Your task to perform on an android device: find which apps use the phone's location Image 0: 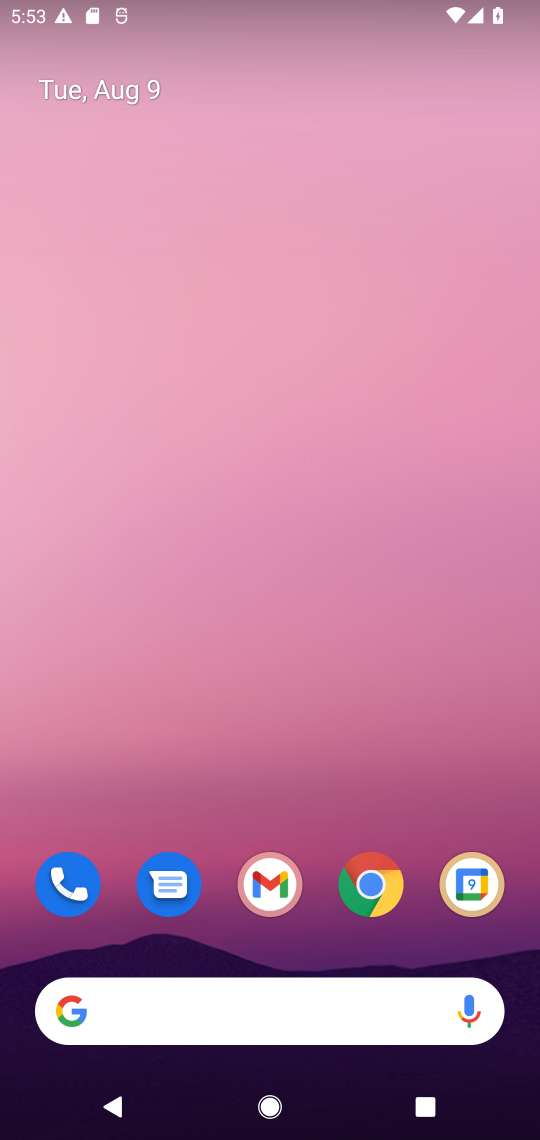
Step 0: press home button
Your task to perform on an android device: find which apps use the phone's location Image 1: 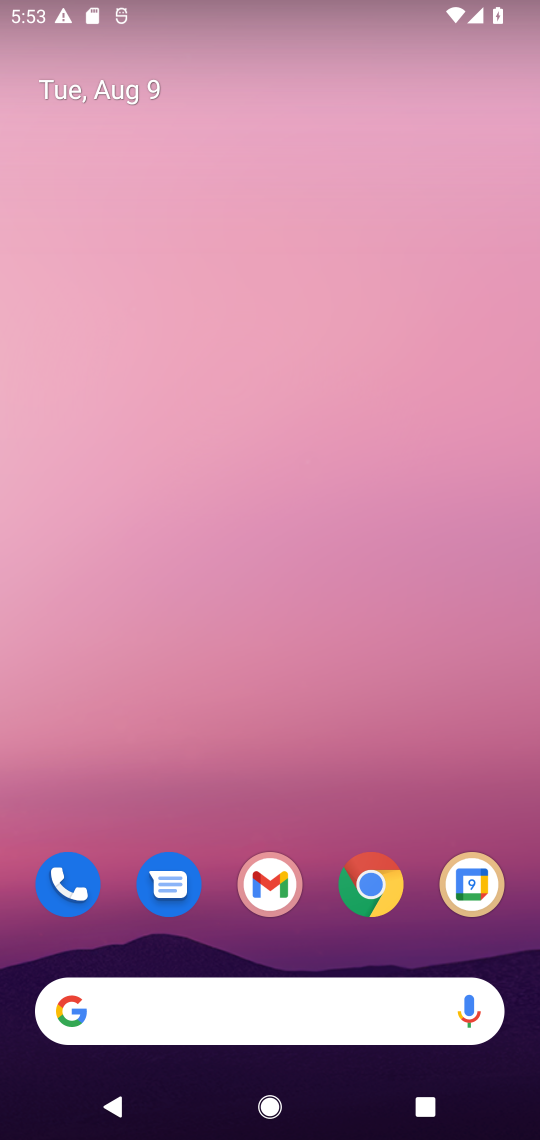
Step 1: drag from (192, 1009) to (314, 311)
Your task to perform on an android device: find which apps use the phone's location Image 2: 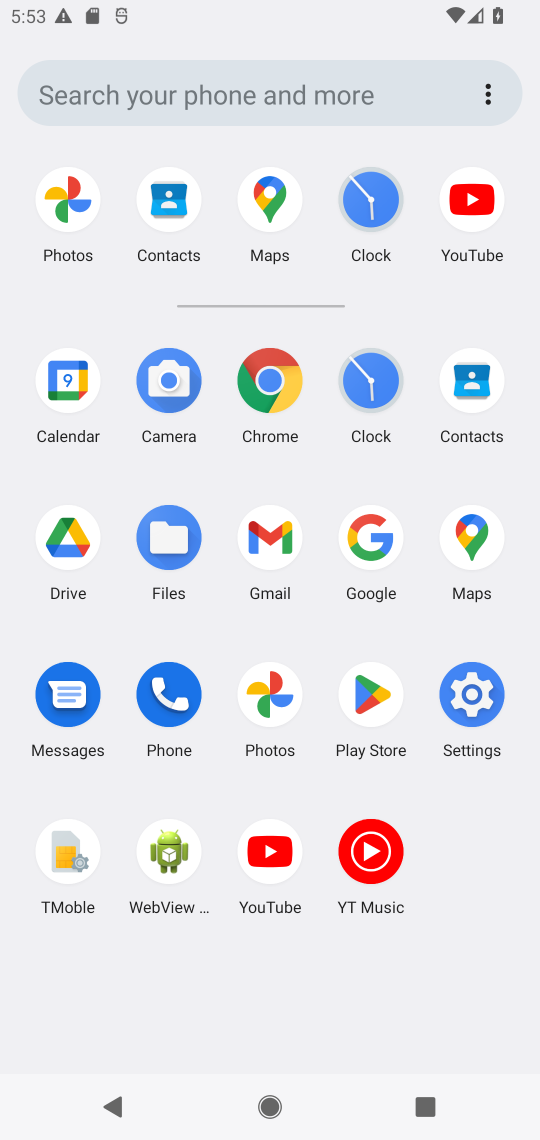
Step 2: click (474, 693)
Your task to perform on an android device: find which apps use the phone's location Image 3: 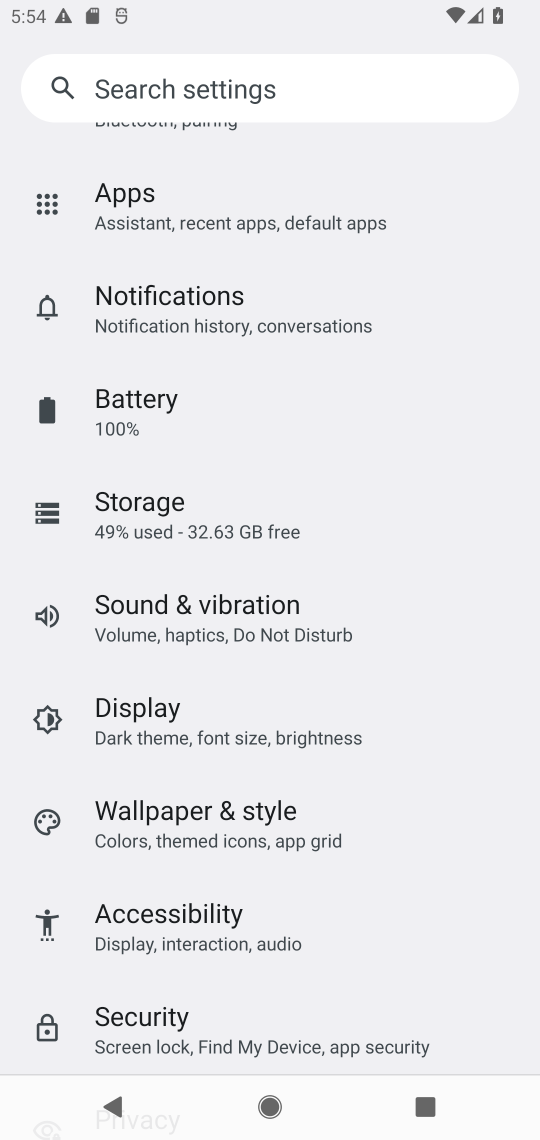
Step 3: drag from (189, 847) to (346, 654)
Your task to perform on an android device: find which apps use the phone's location Image 4: 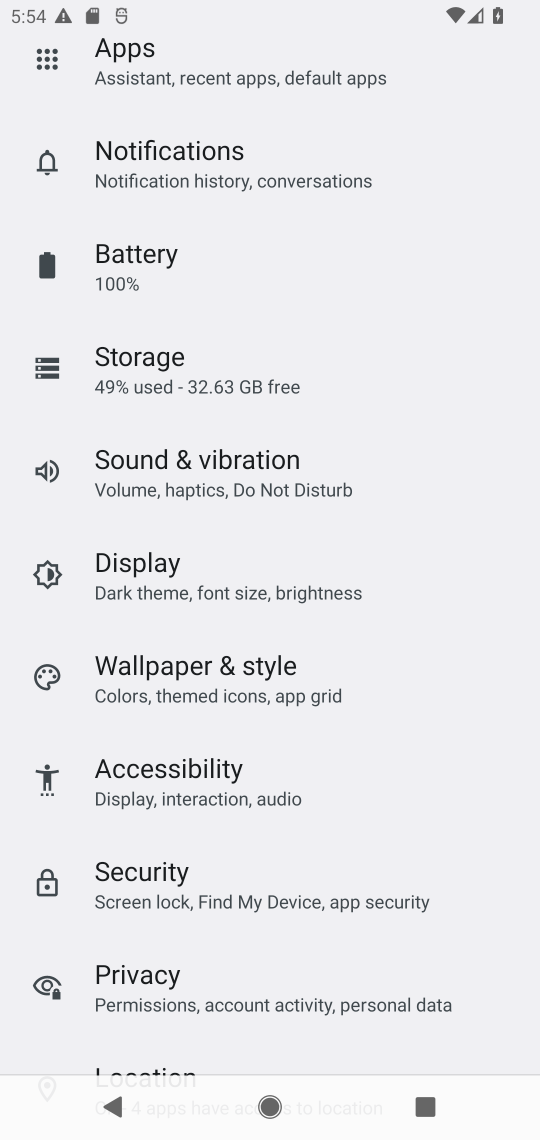
Step 4: drag from (216, 930) to (362, 662)
Your task to perform on an android device: find which apps use the phone's location Image 5: 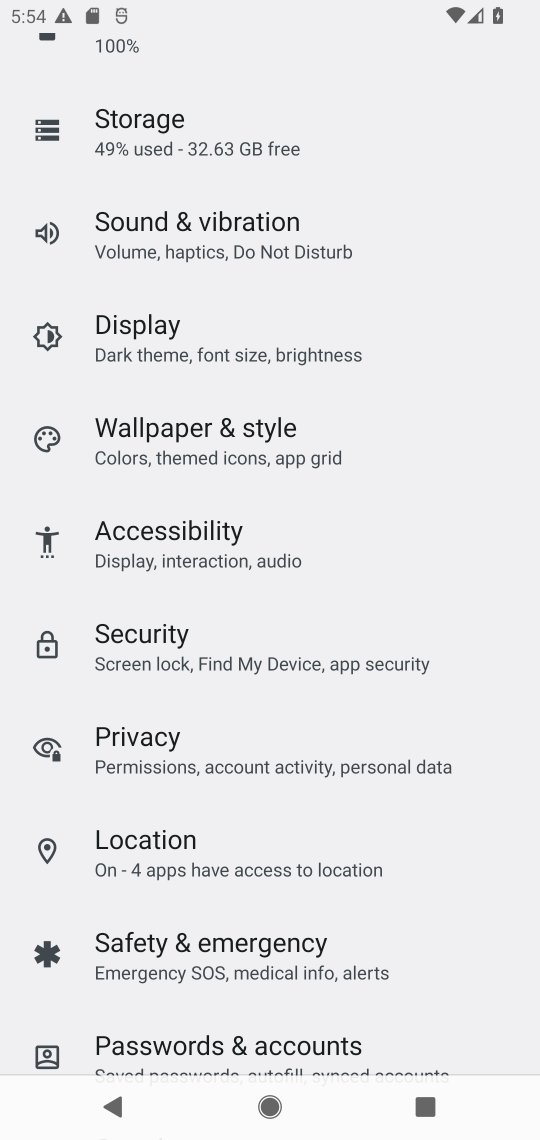
Step 5: click (215, 874)
Your task to perform on an android device: find which apps use the phone's location Image 6: 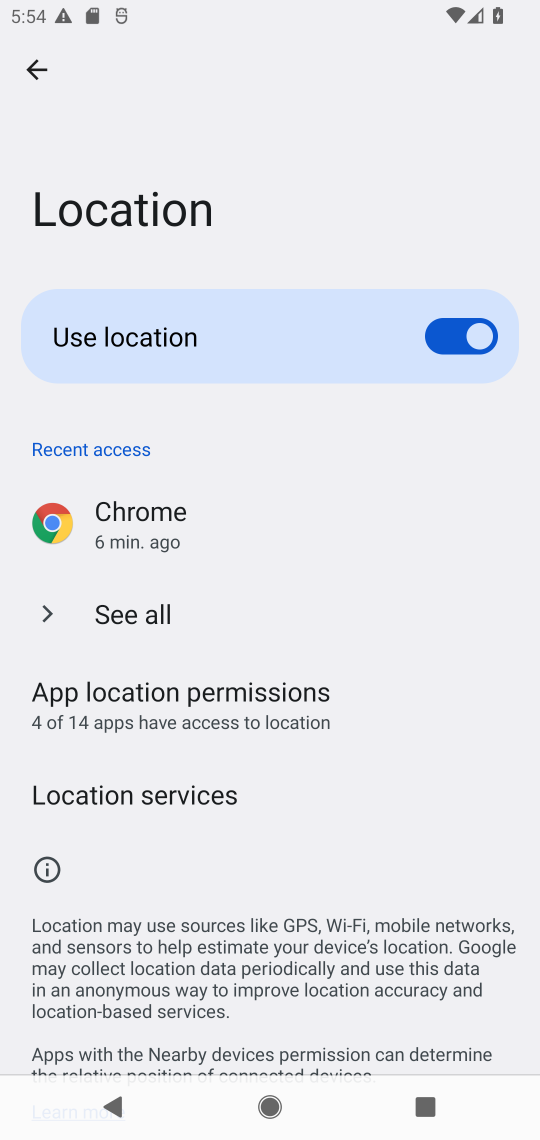
Step 6: click (220, 715)
Your task to perform on an android device: find which apps use the phone's location Image 7: 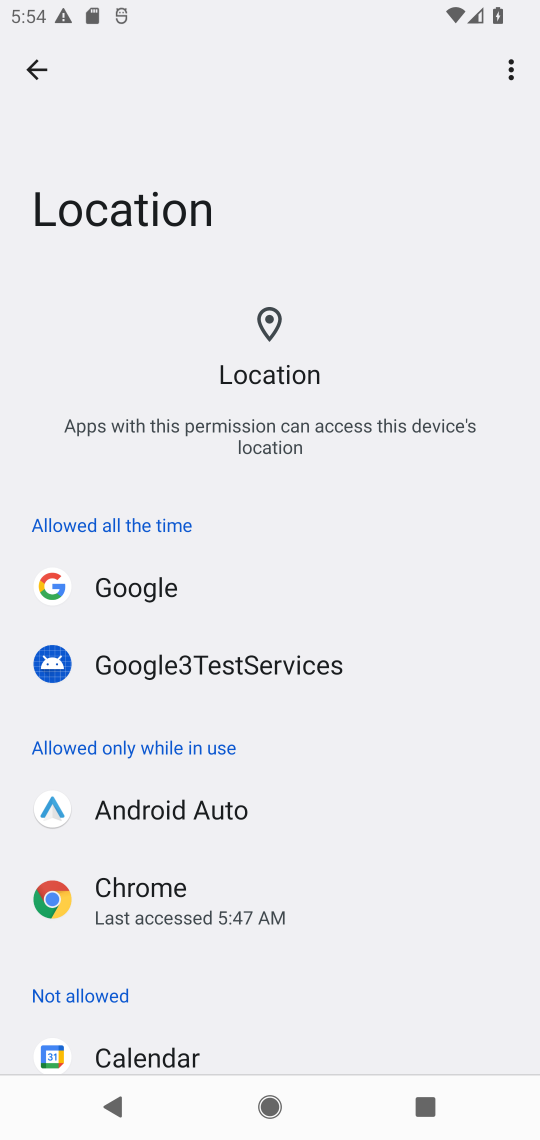
Step 7: drag from (193, 912) to (239, 662)
Your task to perform on an android device: find which apps use the phone's location Image 8: 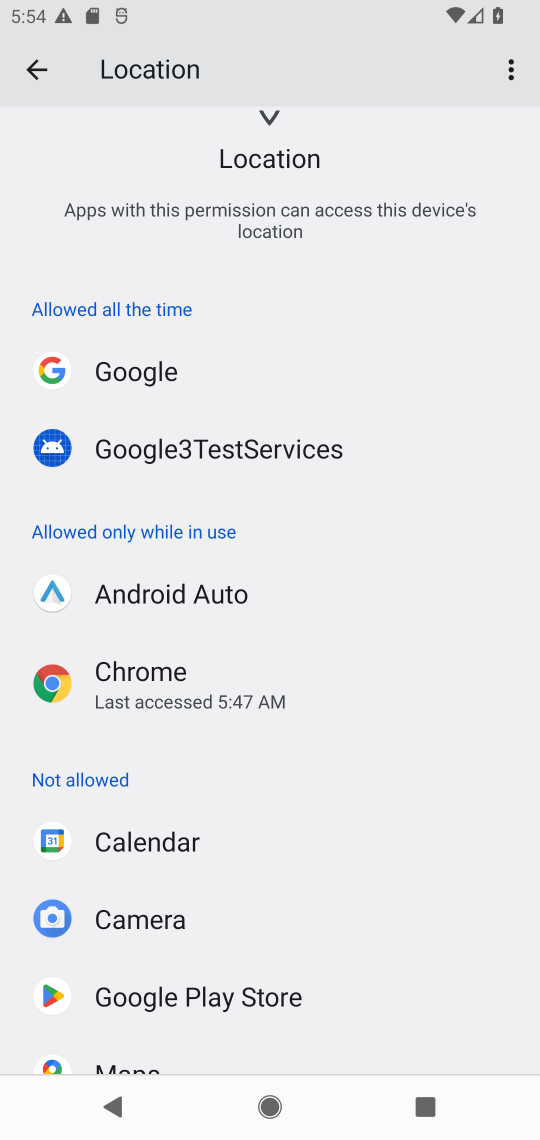
Step 8: drag from (182, 944) to (287, 757)
Your task to perform on an android device: find which apps use the phone's location Image 9: 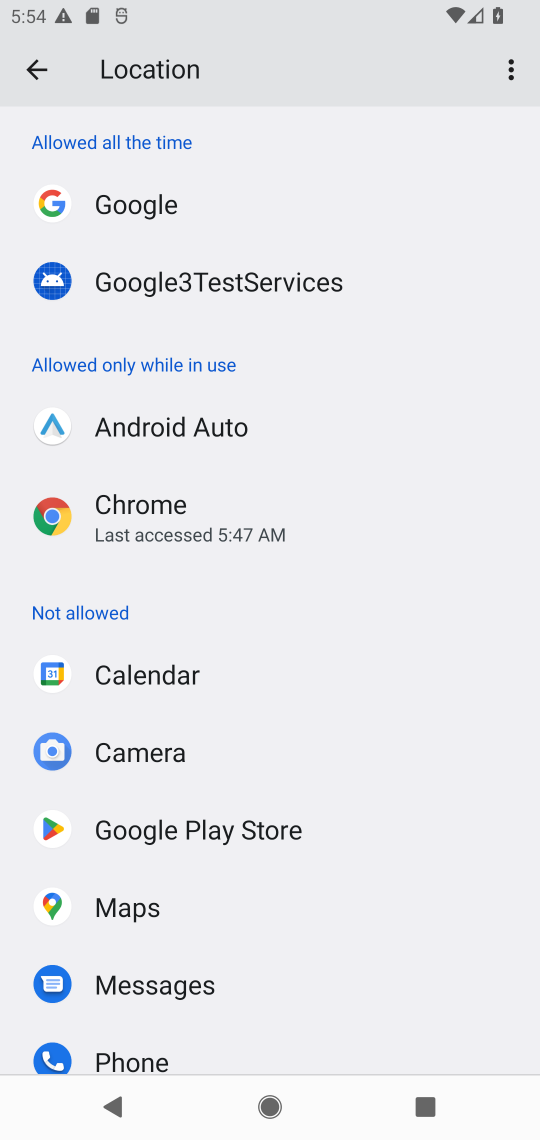
Step 9: click (137, 911)
Your task to perform on an android device: find which apps use the phone's location Image 10: 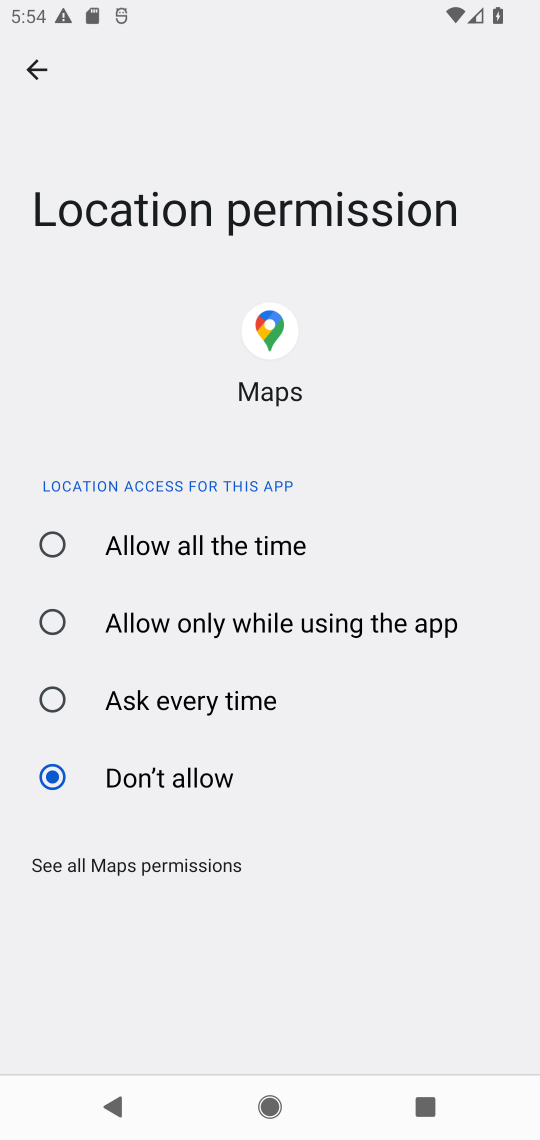
Step 10: click (58, 537)
Your task to perform on an android device: find which apps use the phone's location Image 11: 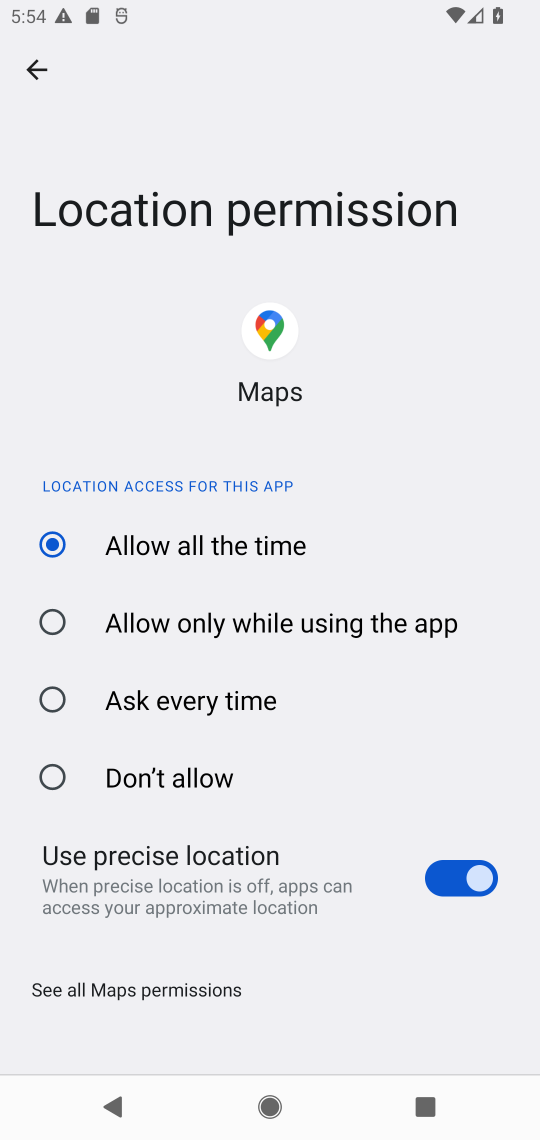
Step 11: task complete